Your task to perform on an android device: Go to Android settings Image 0: 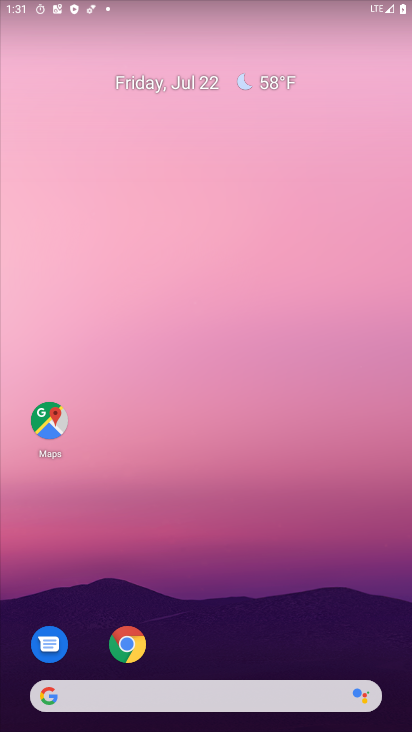
Step 0: drag from (193, 621) to (249, 267)
Your task to perform on an android device: Go to Android settings Image 1: 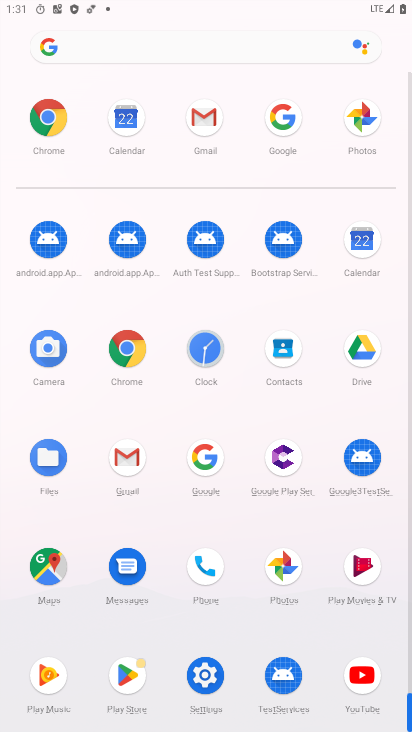
Step 1: click (195, 679)
Your task to perform on an android device: Go to Android settings Image 2: 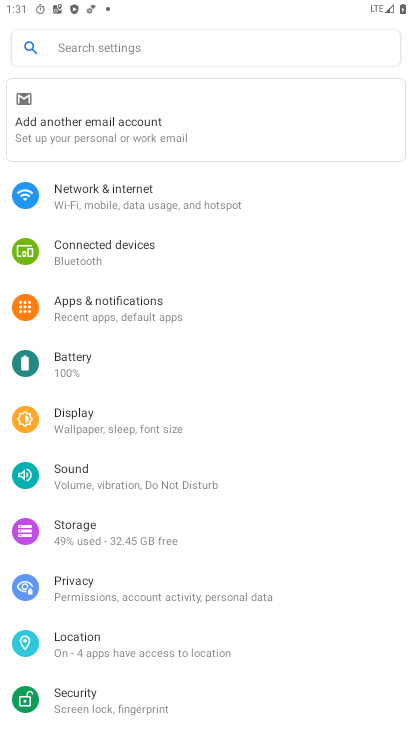
Step 2: drag from (144, 641) to (196, 25)
Your task to perform on an android device: Go to Android settings Image 3: 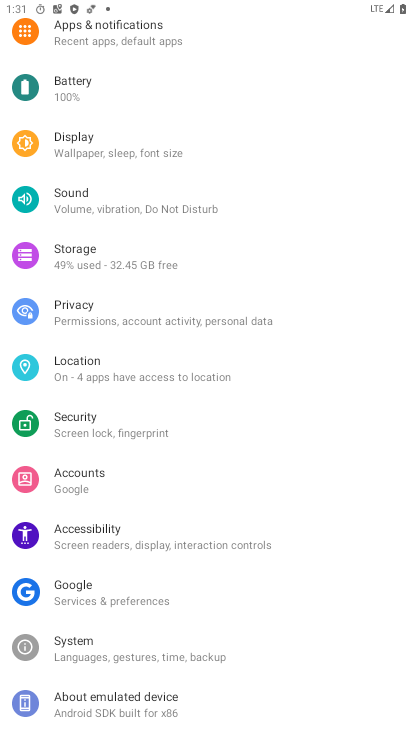
Step 3: click (150, 697)
Your task to perform on an android device: Go to Android settings Image 4: 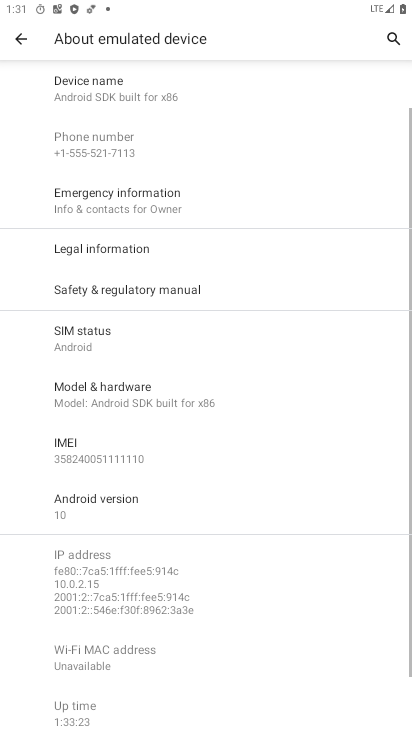
Step 4: drag from (168, 671) to (244, 242)
Your task to perform on an android device: Go to Android settings Image 5: 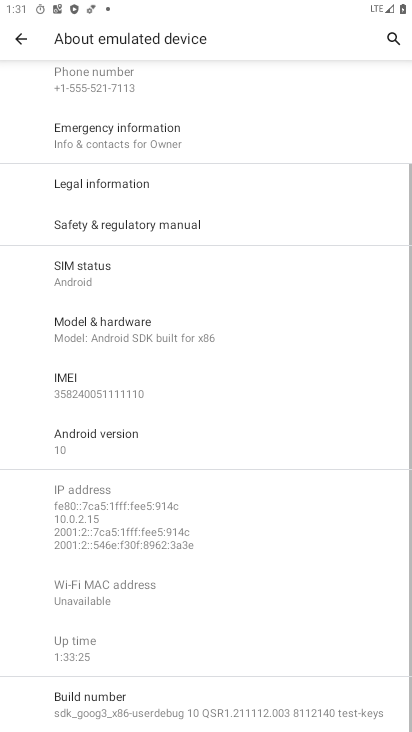
Step 5: click (119, 449)
Your task to perform on an android device: Go to Android settings Image 6: 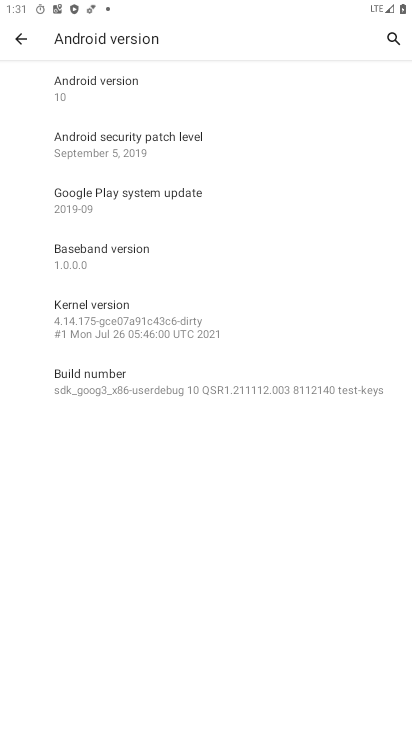
Step 6: drag from (175, 410) to (248, 151)
Your task to perform on an android device: Go to Android settings Image 7: 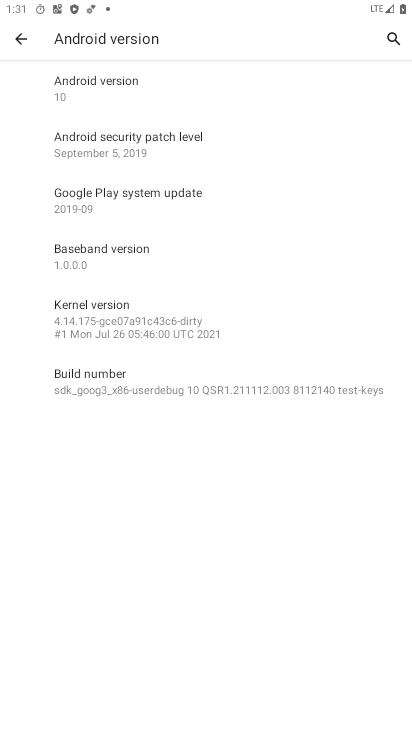
Step 7: click (99, 81)
Your task to perform on an android device: Go to Android settings Image 8: 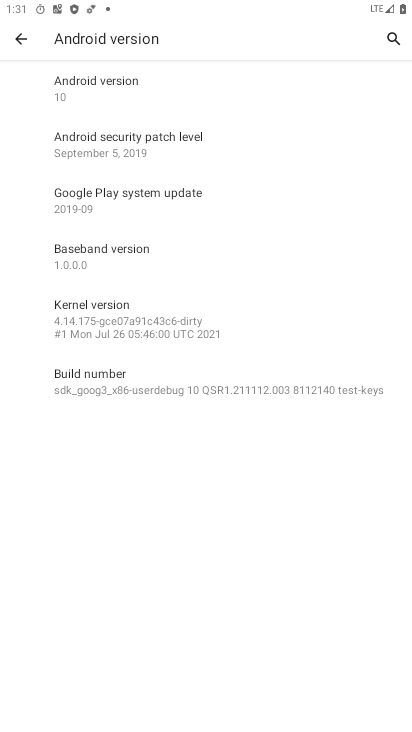
Step 8: task complete